Your task to perform on an android device: Open the phone app and click the voicemail tab. Image 0: 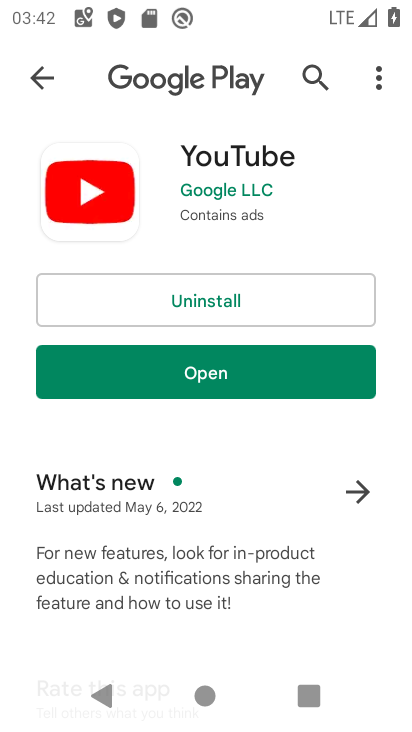
Step 0: press home button
Your task to perform on an android device: Open the phone app and click the voicemail tab. Image 1: 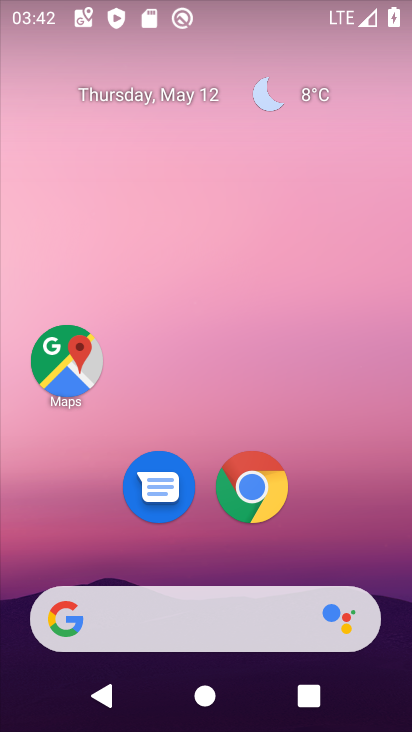
Step 1: drag from (339, 548) to (328, 28)
Your task to perform on an android device: Open the phone app and click the voicemail tab. Image 2: 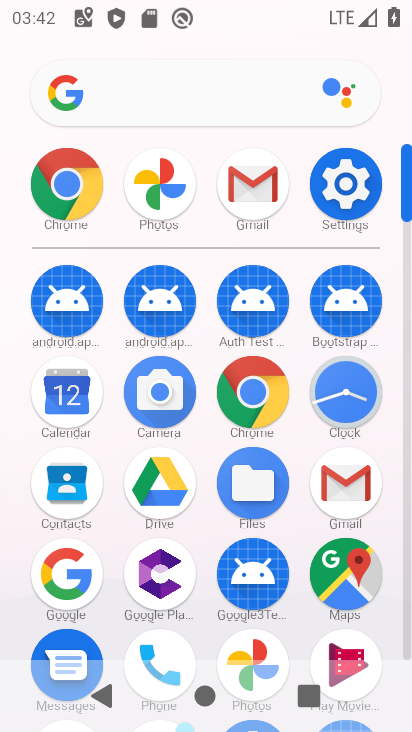
Step 2: click (163, 647)
Your task to perform on an android device: Open the phone app and click the voicemail tab. Image 3: 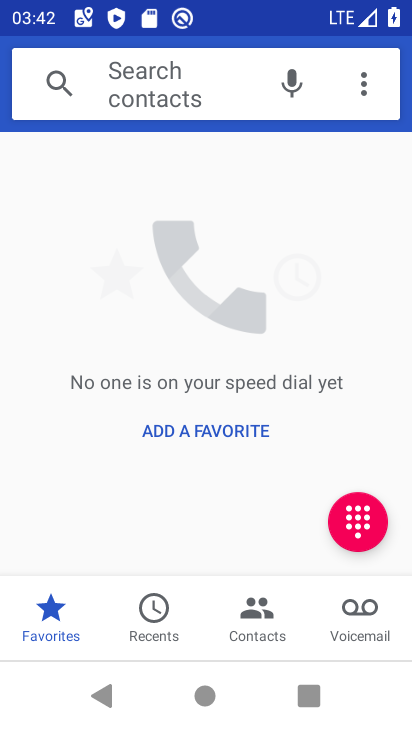
Step 3: click (376, 598)
Your task to perform on an android device: Open the phone app and click the voicemail tab. Image 4: 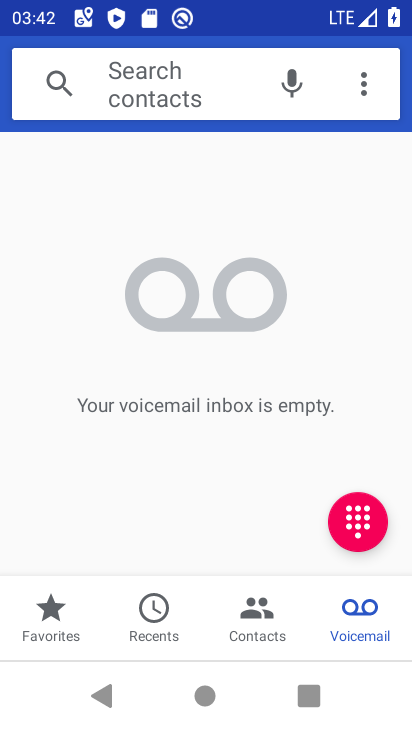
Step 4: task complete